Your task to perform on an android device: open the mobile data screen to see how much data has been used Image 0: 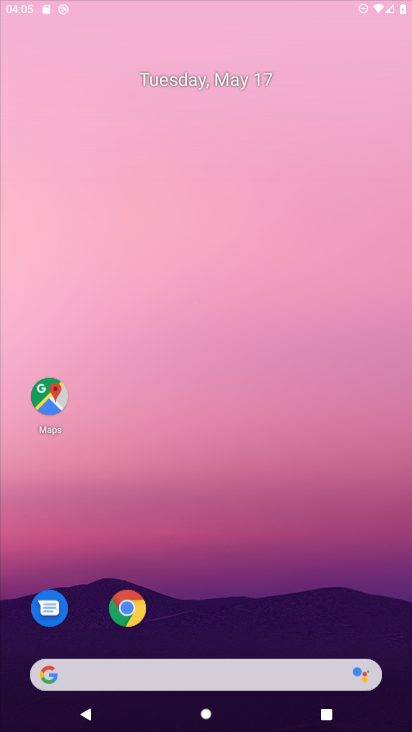
Step 0: click (185, 251)
Your task to perform on an android device: open the mobile data screen to see how much data has been used Image 1: 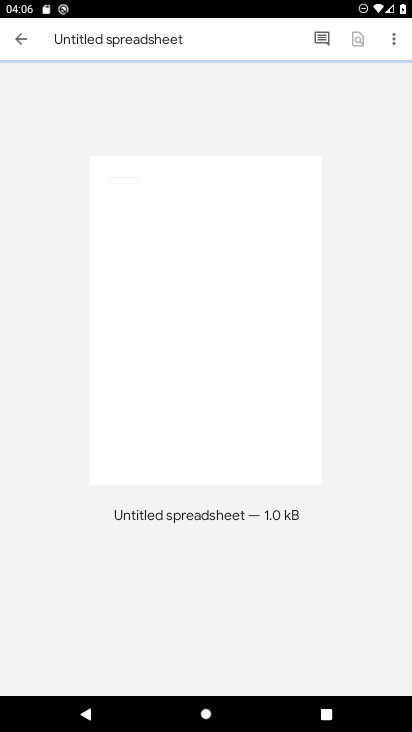
Step 1: press back button
Your task to perform on an android device: open the mobile data screen to see how much data has been used Image 2: 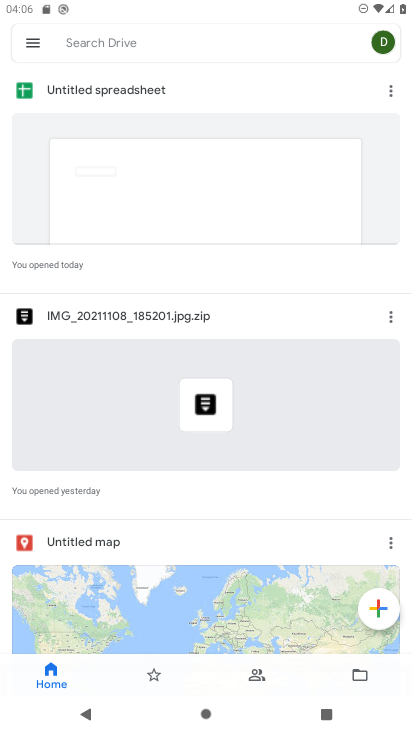
Step 2: press back button
Your task to perform on an android device: open the mobile data screen to see how much data has been used Image 3: 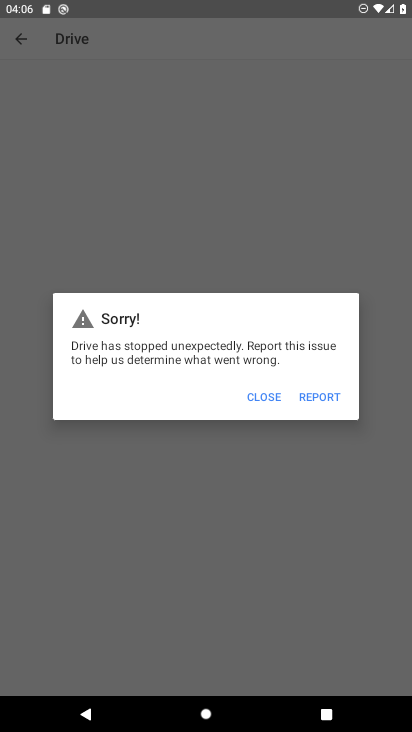
Step 3: click (257, 395)
Your task to perform on an android device: open the mobile data screen to see how much data has been used Image 4: 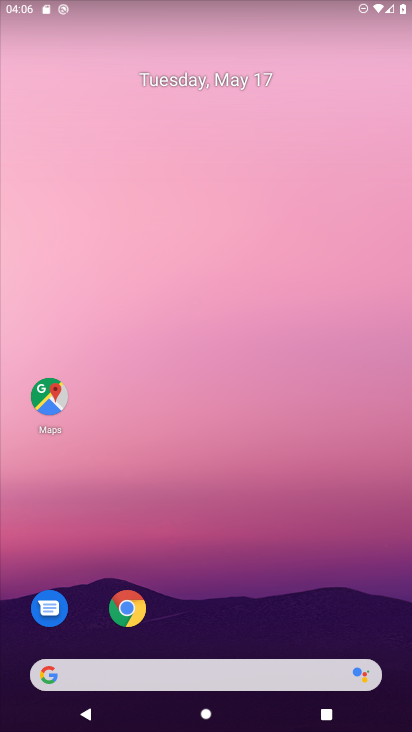
Step 4: drag from (195, 661) to (210, 205)
Your task to perform on an android device: open the mobile data screen to see how much data has been used Image 5: 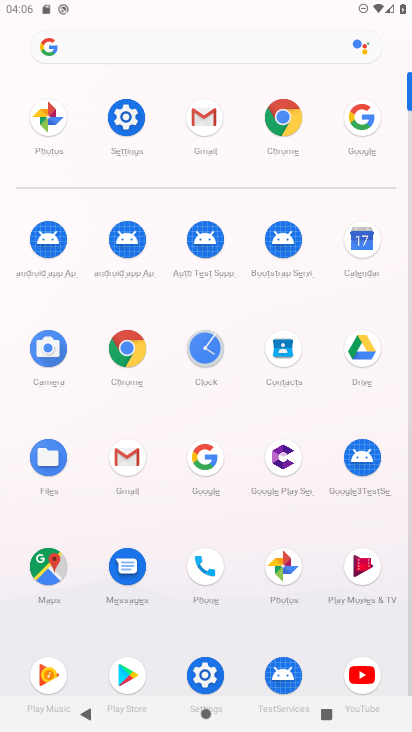
Step 5: click (100, 121)
Your task to perform on an android device: open the mobile data screen to see how much data has been used Image 6: 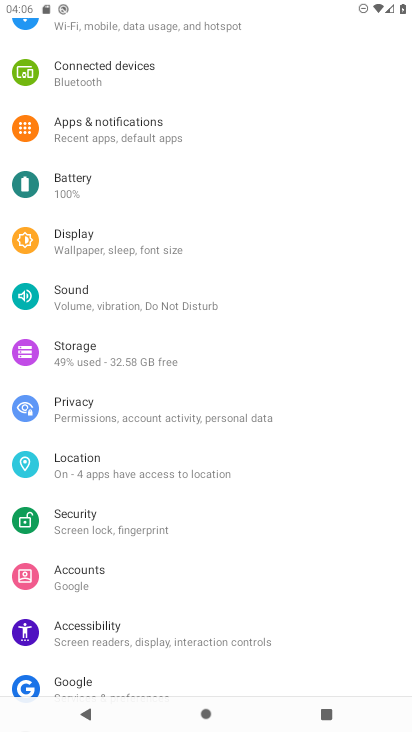
Step 6: click (125, 26)
Your task to perform on an android device: open the mobile data screen to see how much data has been used Image 7: 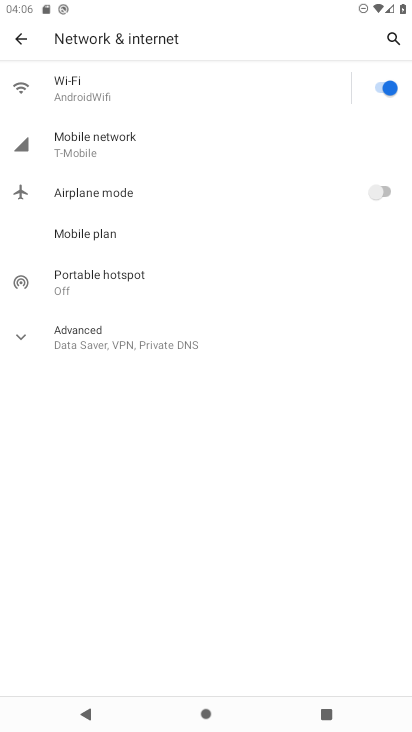
Step 7: click (103, 144)
Your task to perform on an android device: open the mobile data screen to see how much data has been used Image 8: 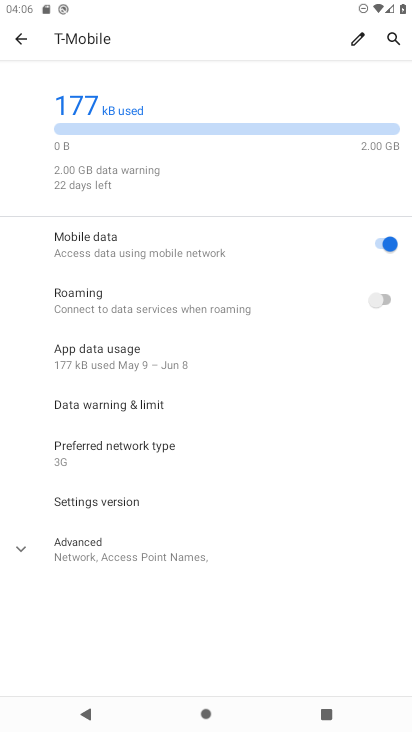
Step 8: click (88, 554)
Your task to perform on an android device: open the mobile data screen to see how much data has been used Image 9: 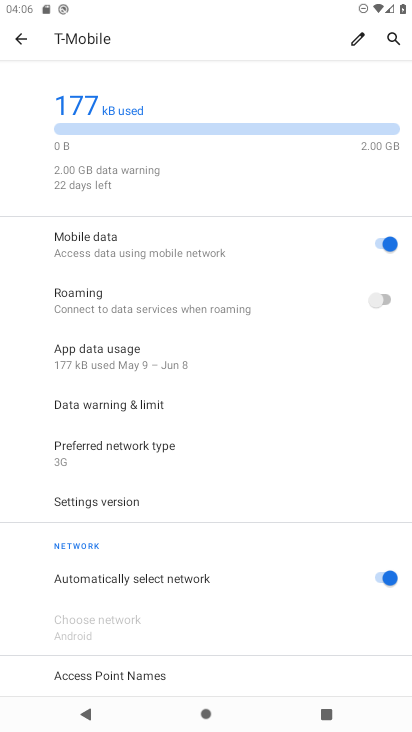
Step 9: task complete